Your task to perform on an android device: Go to privacy settings Image 0: 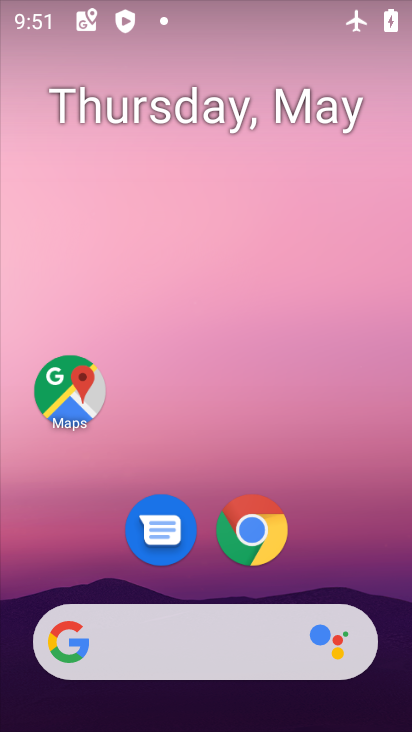
Step 0: drag from (173, 690) to (210, 81)
Your task to perform on an android device: Go to privacy settings Image 1: 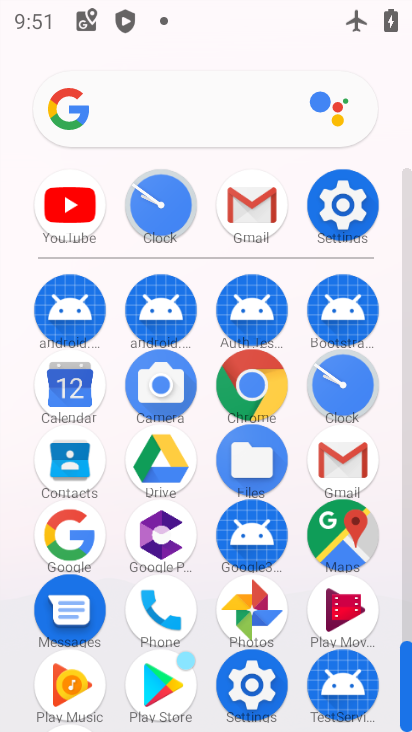
Step 1: click (340, 201)
Your task to perform on an android device: Go to privacy settings Image 2: 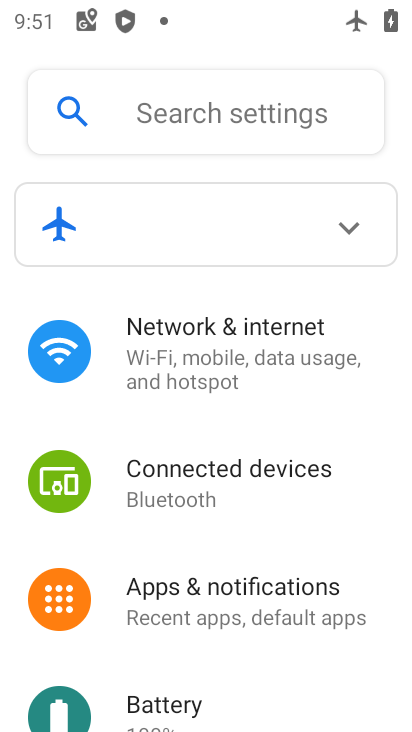
Step 2: drag from (264, 679) to (267, 227)
Your task to perform on an android device: Go to privacy settings Image 3: 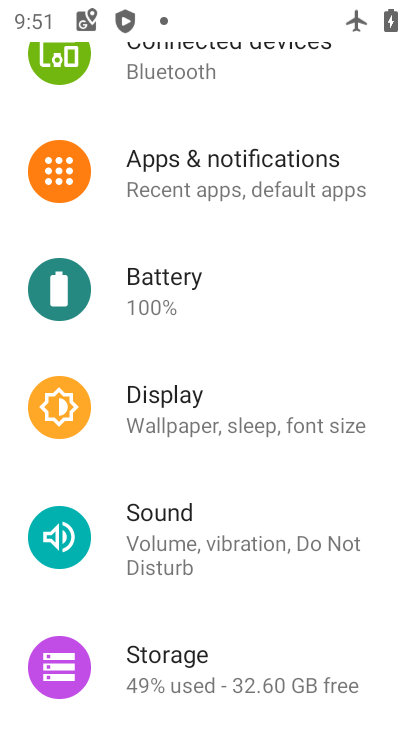
Step 3: drag from (305, 675) to (330, 197)
Your task to perform on an android device: Go to privacy settings Image 4: 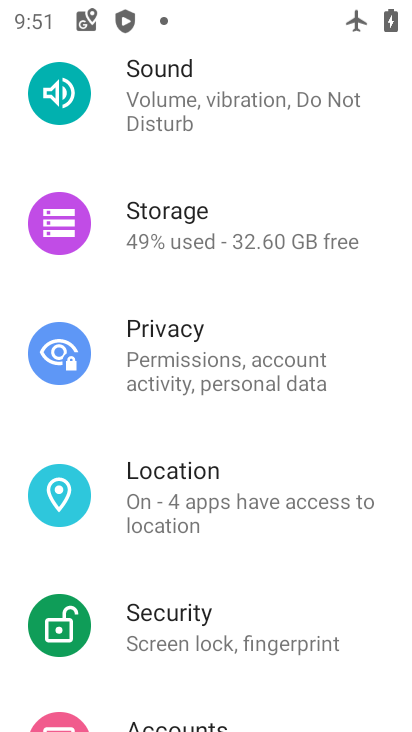
Step 4: click (197, 383)
Your task to perform on an android device: Go to privacy settings Image 5: 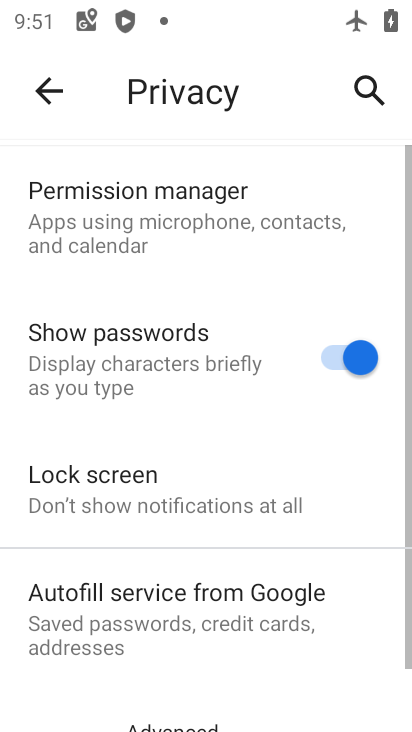
Step 5: task complete